Your task to perform on an android device: change alarm snooze length Image 0: 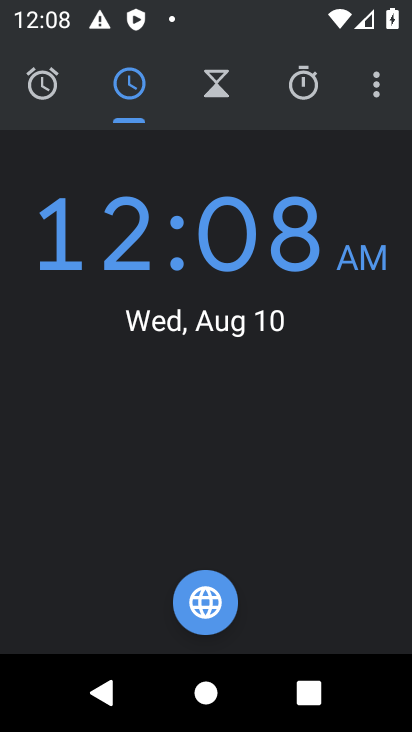
Step 0: press home button
Your task to perform on an android device: change alarm snooze length Image 1: 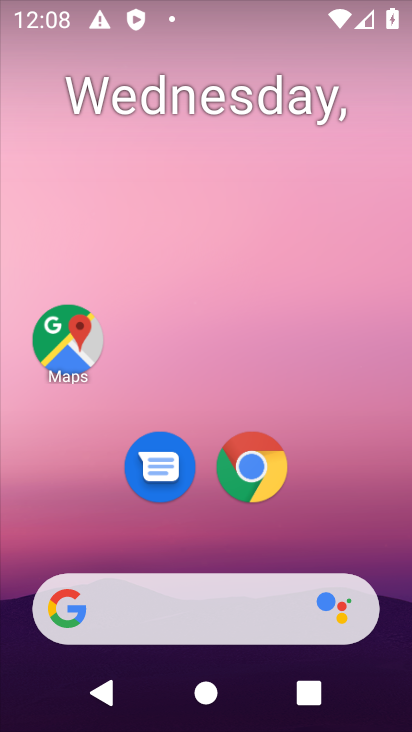
Step 1: drag from (199, 523) to (222, 117)
Your task to perform on an android device: change alarm snooze length Image 2: 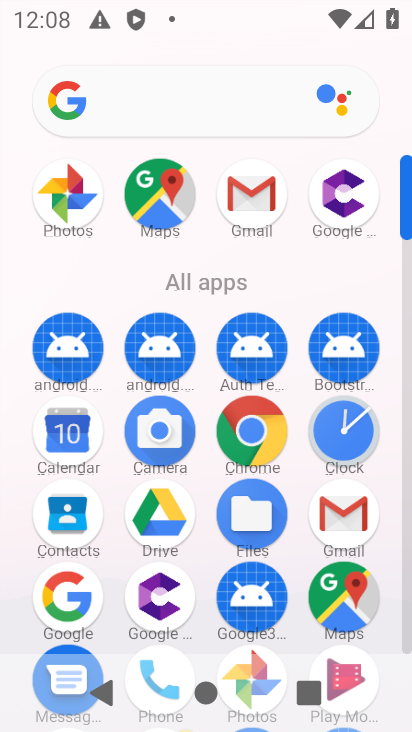
Step 2: click (259, 217)
Your task to perform on an android device: change alarm snooze length Image 3: 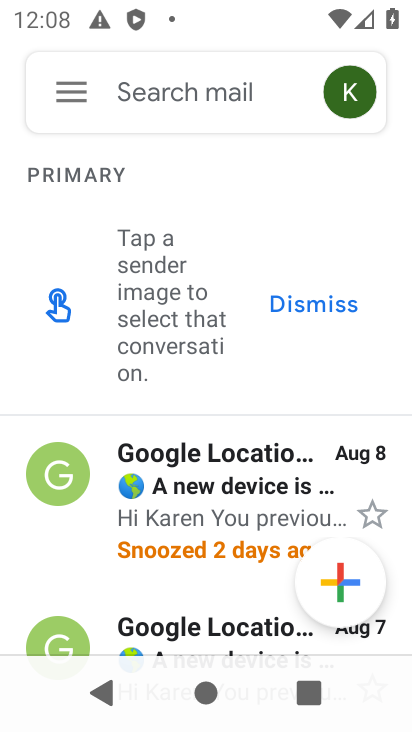
Step 3: click (73, 85)
Your task to perform on an android device: change alarm snooze length Image 4: 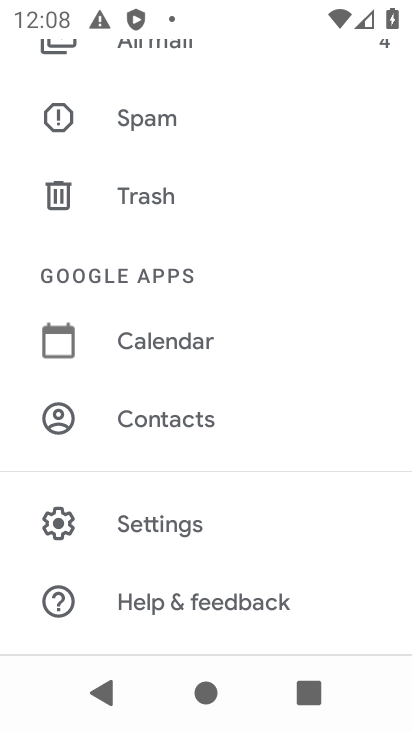
Step 4: press home button
Your task to perform on an android device: change alarm snooze length Image 5: 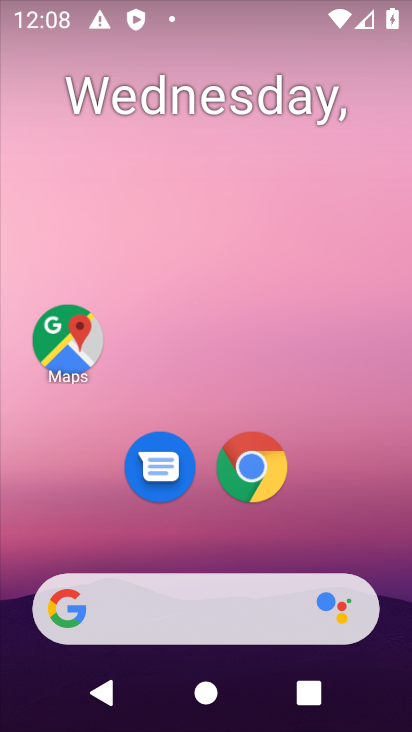
Step 5: click (167, 331)
Your task to perform on an android device: change alarm snooze length Image 6: 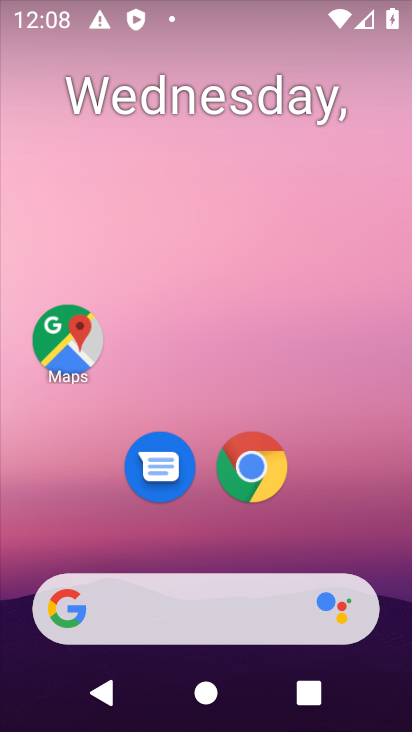
Step 6: drag from (180, 527) to (187, 52)
Your task to perform on an android device: change alarm snooze length Image 7: 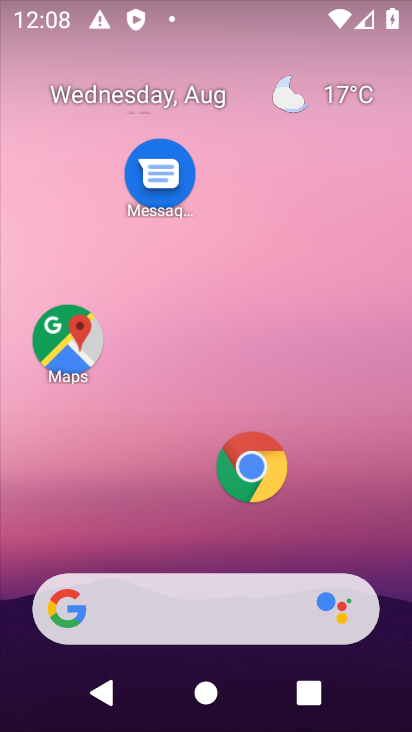
Step 7: drag from (161, 510) to (275, 21)
Your task to perform on an android device: change alarm snooze length Image 8: 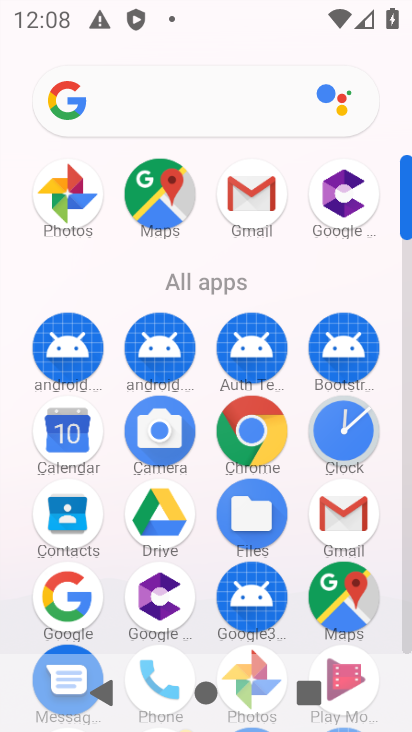
Step 8: click (351, 432)
Your task to perform on an android device: change alarm snooze length Image 9: 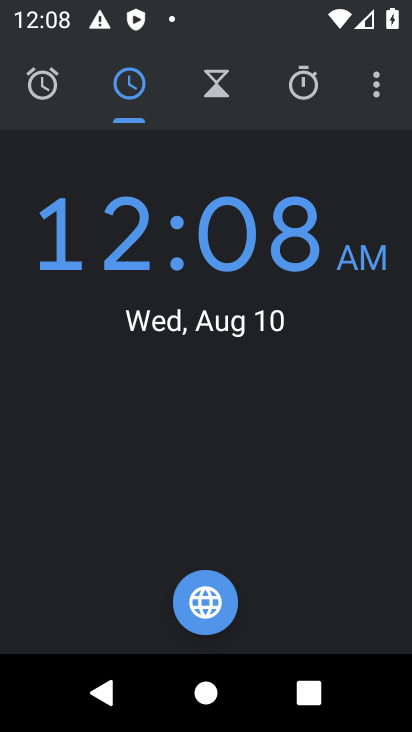
Step 9: click (389, 95)
Your task to perform on an android device: change alarm snooze length Image 10: 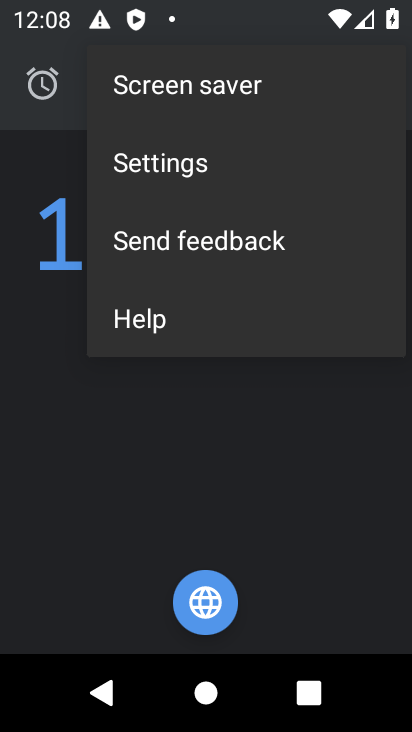
Step 10: click (228, 162)
Your task to perform on an android device: change alarm snooze length Image 11: 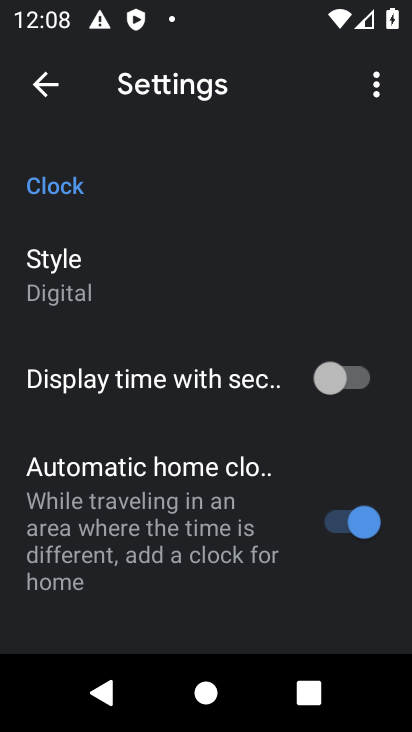
Step 11: drag from (203, 587) to (201, 288)
Your task to perform on an android device: change alarm snooze length Image 12: 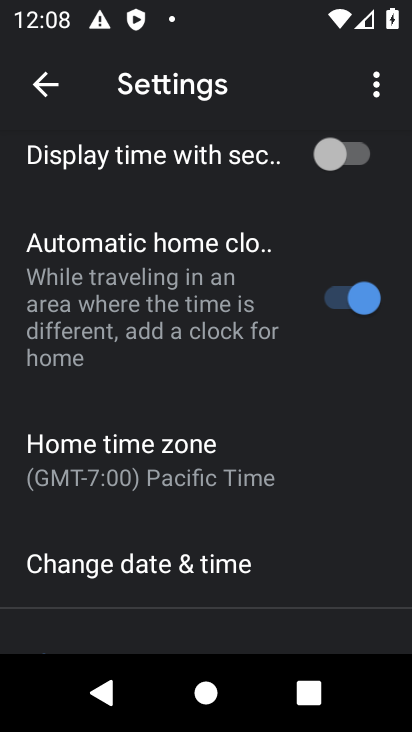
Step 12: drag from (157, 597) to (147, 216)
Your task to perform on an android device: change alarm snooze length Image 13: 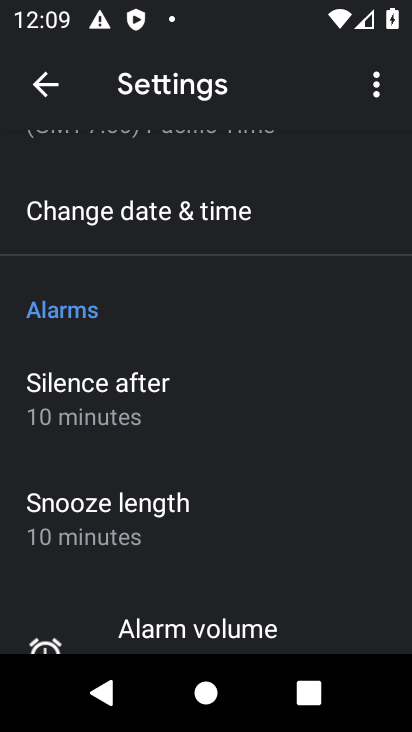
Step 13: drag from (210, 550) to (177, 169)
Your task to perform on an android device: change alarm snooze length Image 14: 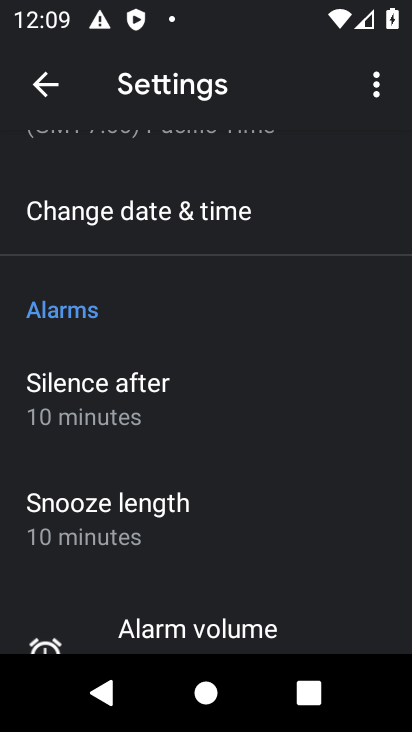
Step 14: click (222, 537)
Your task to perform on an android device: change alarm snooze length Image 15: 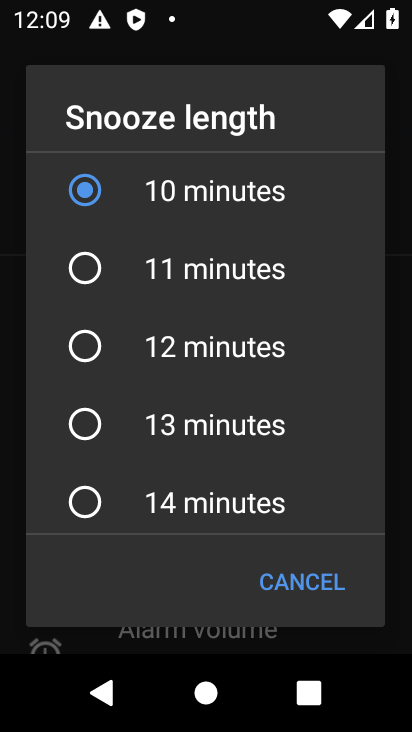
Step 15: click (183, 511)
Your task to perform on an android device: change alarm snooze length Image 16: 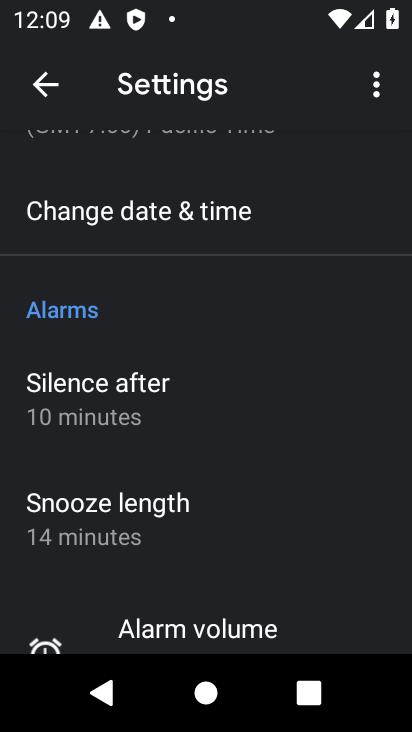
Step 16: task complete